Your task to perform on an android device: allow cookies in the chrome app Image 0: 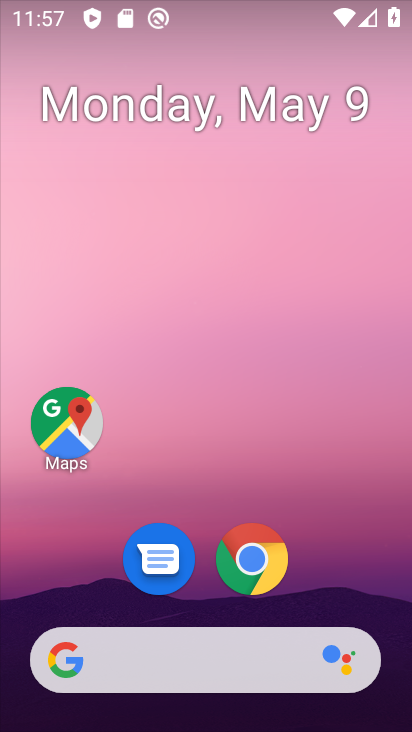
Step 0: click (261, 580)
Your task to perform on an android device: allow cookies in the chrome app Image 1: 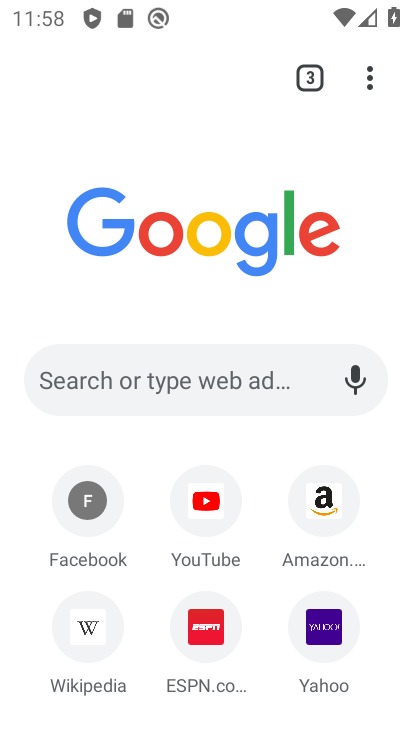
Step 1: click (376, 83)
Your task to perform on an android device: allow cookies in the chrome app Image 2: 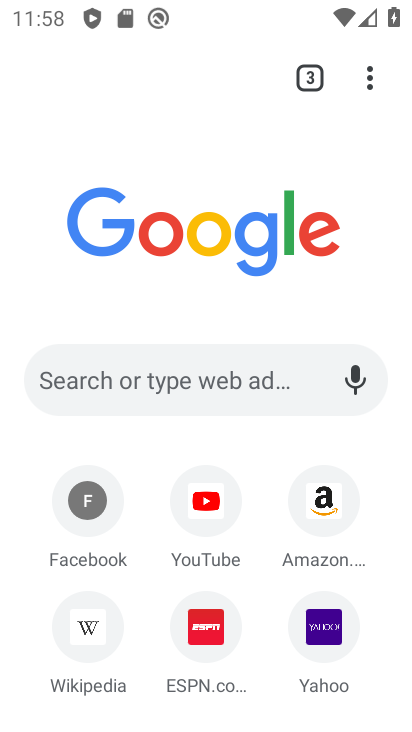
Step 2: click (370, 90)
Your task to perform on an android device: allow cookies in the chrome app Image 3: 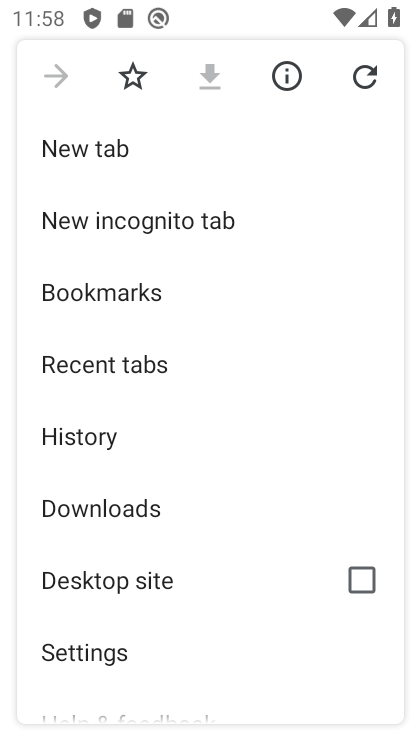
Step 3: drag from (214, 491) to (218, 297)
Your task to perform on an android device: allow cookies in the chrome app Image 4: 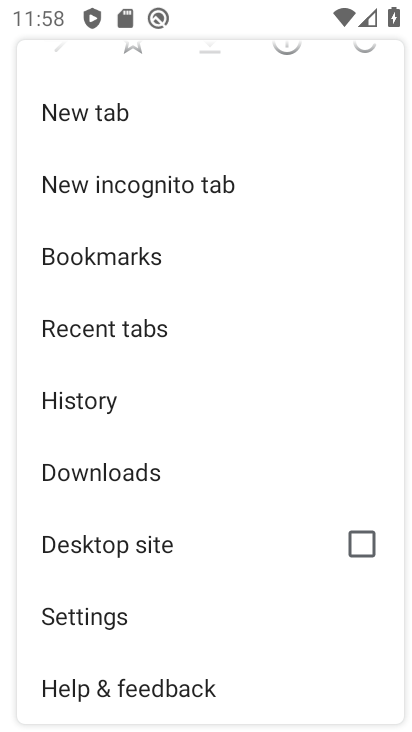
Step 4: click (95, 612)
Your task to perform on an android device: allow cookies in the chrome app Image 5: 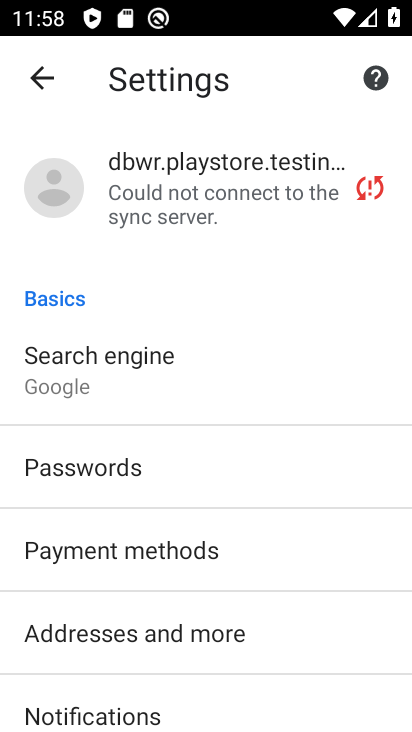
Step 5: drag from (111, 595) to (73, 106)
Your task to perform on an android device: allow cookies in the chrome app Image 6: 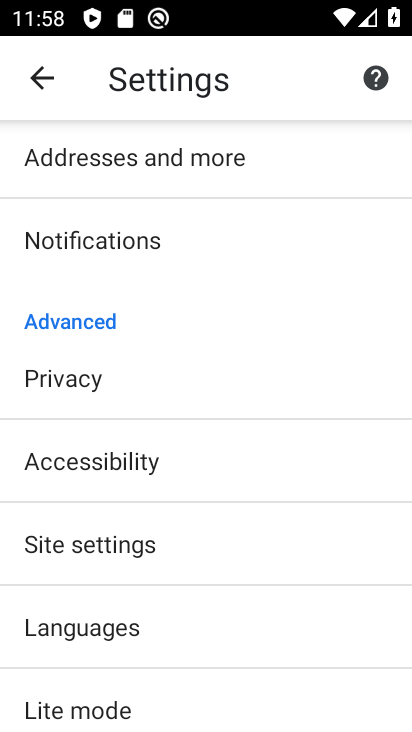
Step 6: click (74, 393)
Your task to perform on an android device: allow cookies in the chrome app Image 7: 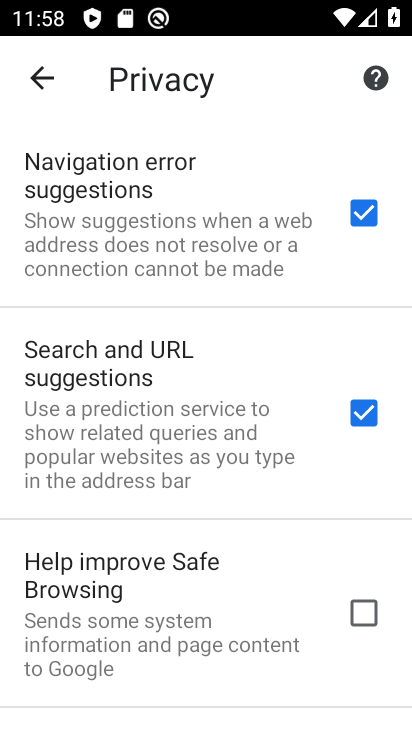
Step 7: drag from (172, 596) to (134, 128)
Your task to perform on an android device: allow cookies in the chrome app Image 8: 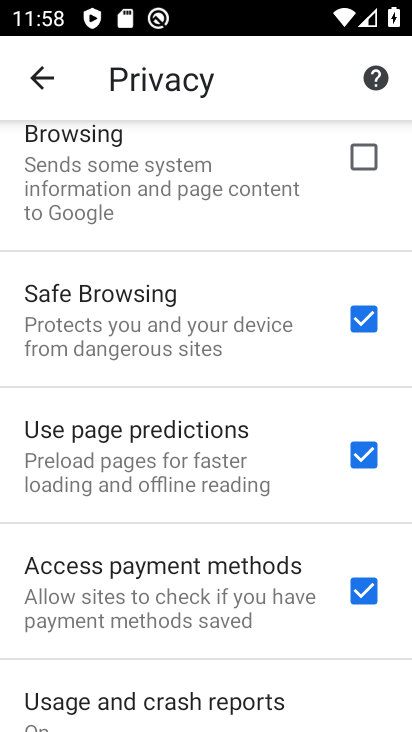
Step 8: drag from (205, 603) to (138, 244)
Your task to perform on an android device: allow cookies in the chrome app Image 9: 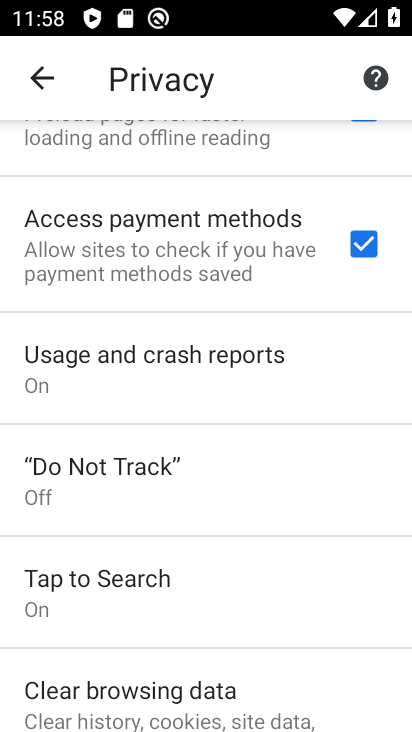
Step 9: click (176, 686)
Your task to perform on an android device: allow cookies in the chrome app Image 10: 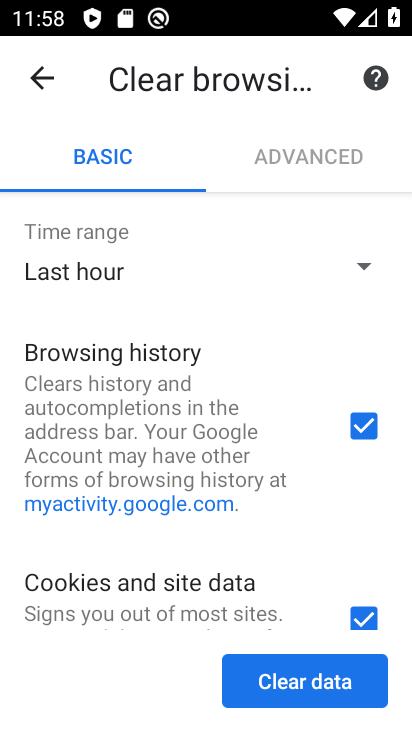
Step 10: click (281, 679)
Your task to perform on an android device: allow cookies in the chrome app Image 11: 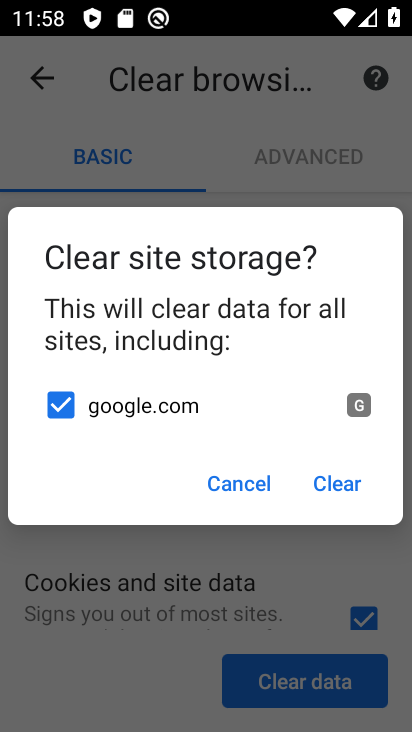
Step 11: click (340, 483)
Your task to perform on an android device: allow cookies in the chrome app Image 12: 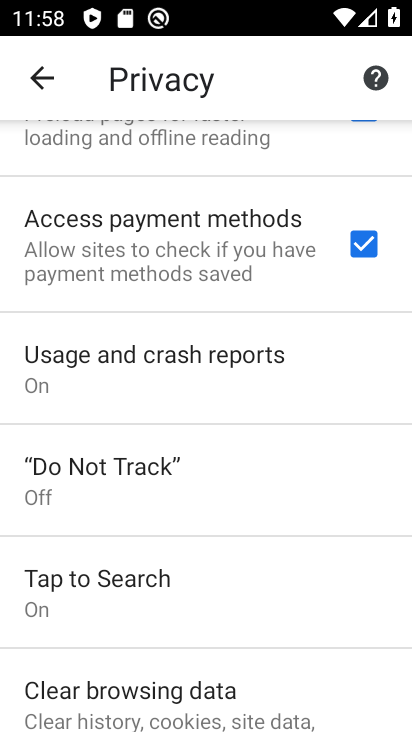
Step 12: task complete